Your task to perform on an android device: open a bookmark in the chrome app Image 0: 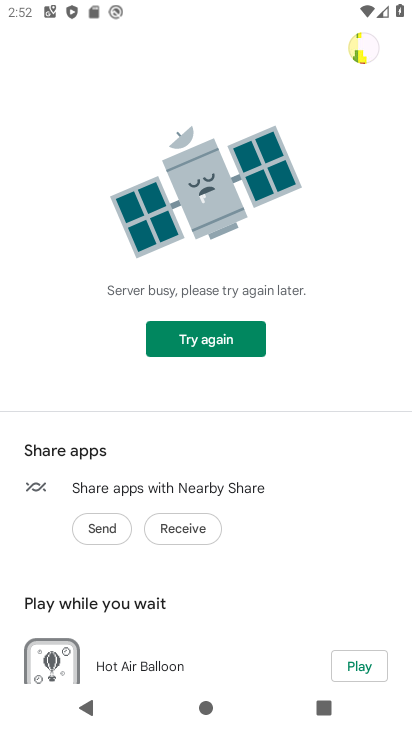
Step 0: press home button
Your task to perform on an android device: open a bookmark in the chrome app Image 1: 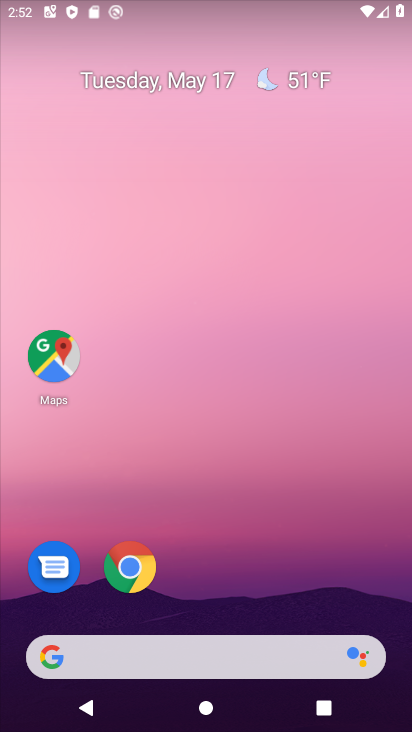
Step 1: click (120, 571)
Your task to perform on an android device: open a bookmark in the chrome app Image 2: 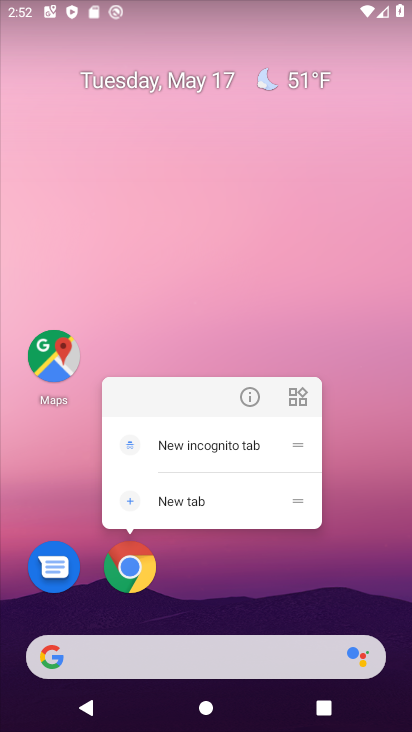
Step 2: click (130, 590)
Your task to perform on an android device: open a bookmark in the chrome app Image 3: 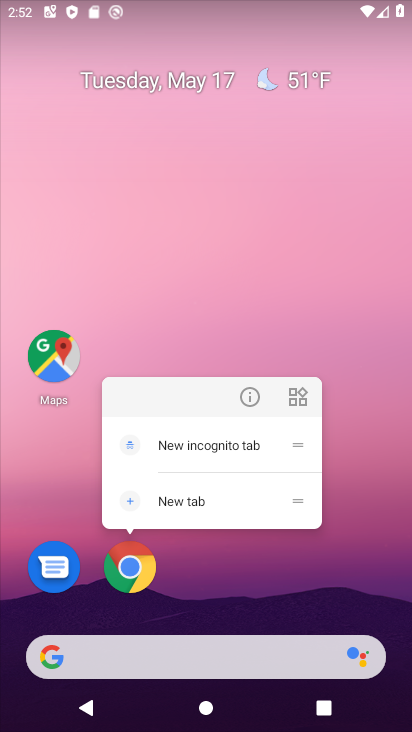
Step 3: click (130, 590)
Your task to perform on an android device: open a bookmark in the chrome app Image 4: 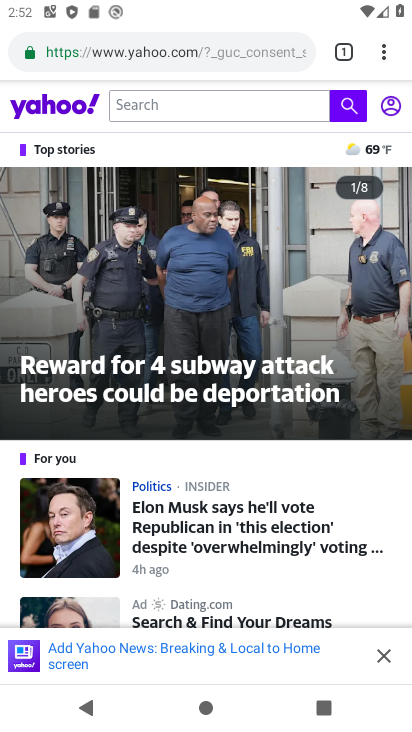
Step 4: task complete